Your task to perform on an android device: Set the phone to "Do not disturb". Image 0: 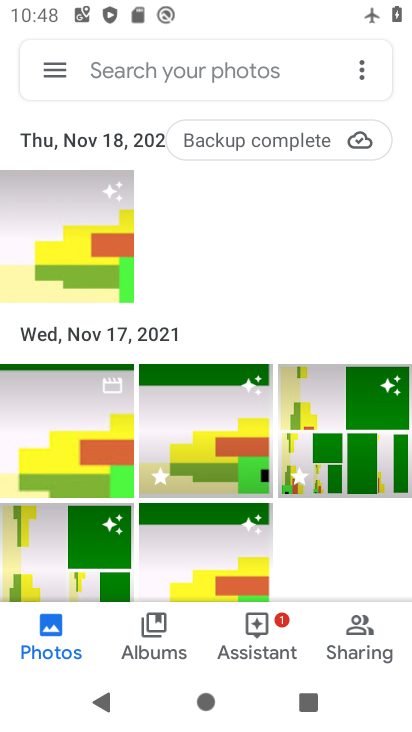
Step 0: drag from (236, 7) to (290, 637)
Your task to perform on an android device: Set the phone to "Do not disturb". Image 1: 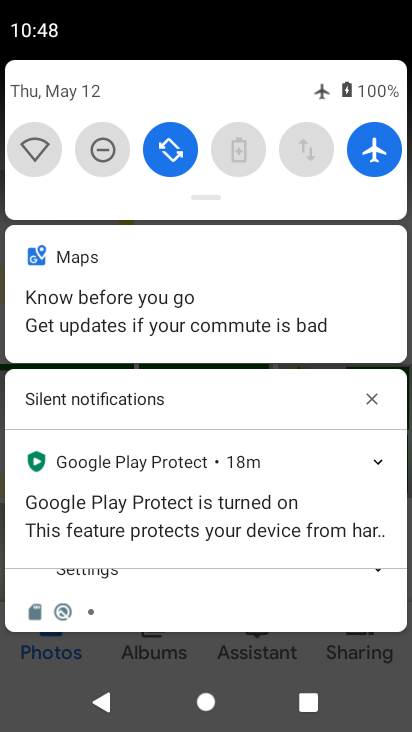
Step 1: click (95, 148)
Your task to perform on an android device: Set the phone to "Do not disturb". Image 2: 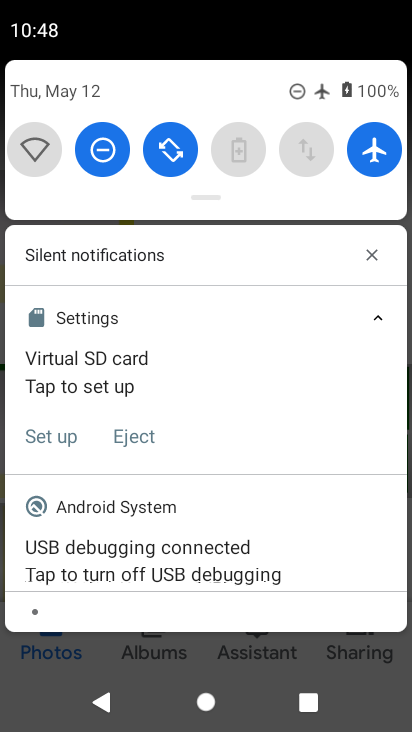
Step 2: task complete